Your task to perform on an android device: turn off priority inbox in the gmail app Image 0: 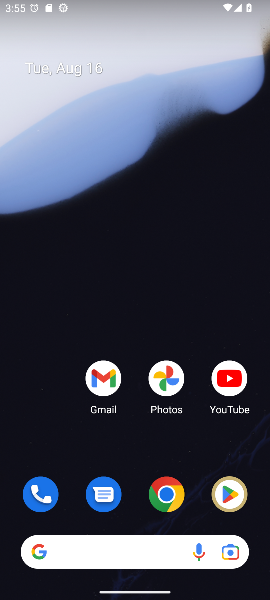
Step 0: drag from (120, 523) to (261, 318)
Your task to perform on an android device: turn off priority inbox in the gmail app Image 1: 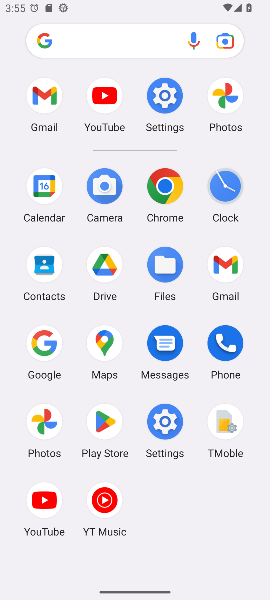
Step 1: click (223, 271)
Your task to perform on an android device: turn off priority inbox in the gmail app Image 2: 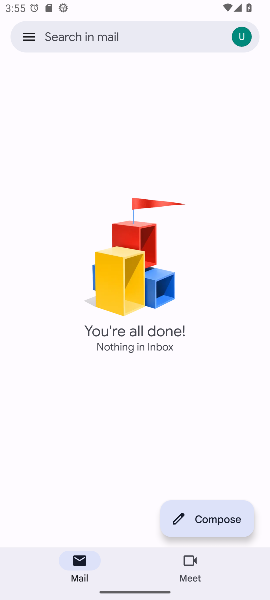
Step 2: click (25, 35)
Your task to perform on an android device: turn off priority inbox in the gmail app Image 3: 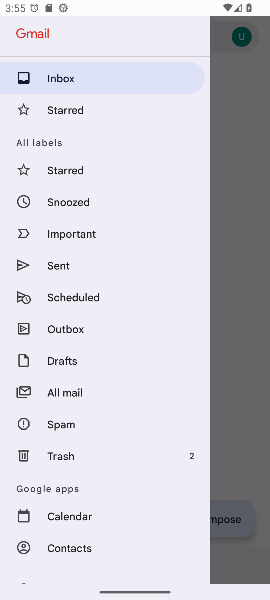
Step 3: drag from (67, 522) to (43, 81)
Your task to perform on an android device: turn off priority inbox in the gmail app Image 4: 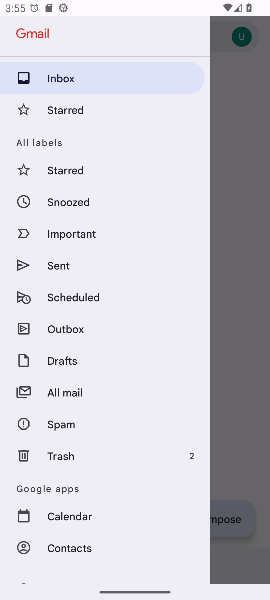
Step 4: drag from (72, 534) to (42, 127)
Your task to perform on an android device: turn off priority inbox in the gmail app Image 5: 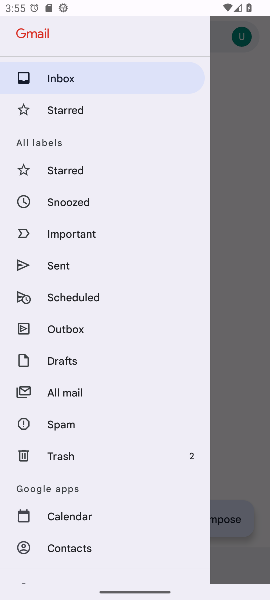
Step 5: drag from (71, 495) to (70, 36)
Your task to perform on an android device: turn off priority inbox in the gmail app Image 6: 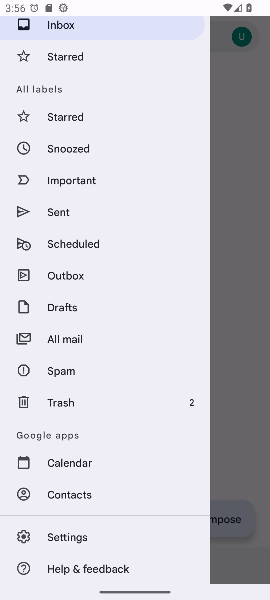
Step 6: click (66, 543)
Your task to perform on an android device: turn off priority inbox in the gmail app Image 7: 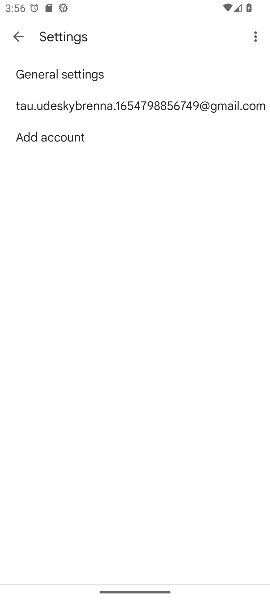
Step 7: click (43, 111)
Your task to perform on an android device: turn off priority inbox in the gmail app Image 8: 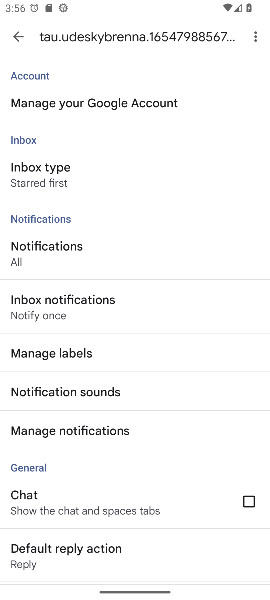
Step 8: click (58, 172)
Your task to perform on an android device: turn off priority inbox in the gmail app Image 9: 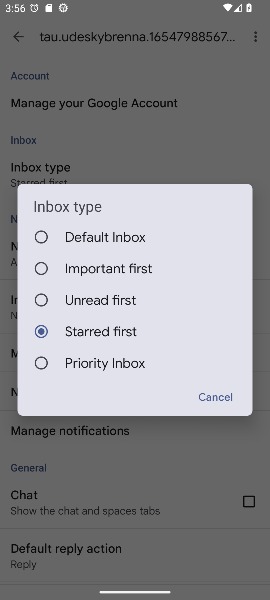
Step 9: task complete